Your task to perform on an android device: add a label to a message in the gmail app Image 0: 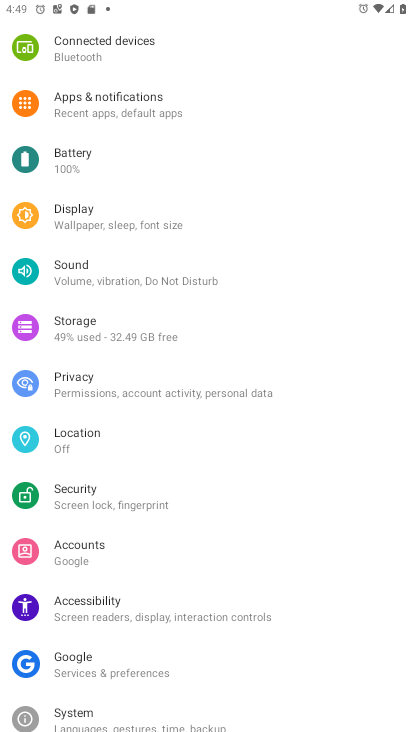
Step 0: drag from (262, 709) to (338, 326)
Your task to perform on an android device: add a label to a message in the gmail app Image 1: 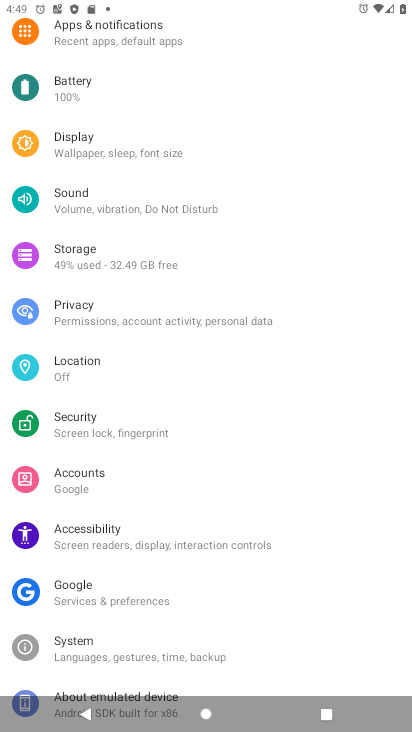
Step 1: press home button
Your task to perform on an android device: add a label to a message in the gmail app Image 2: 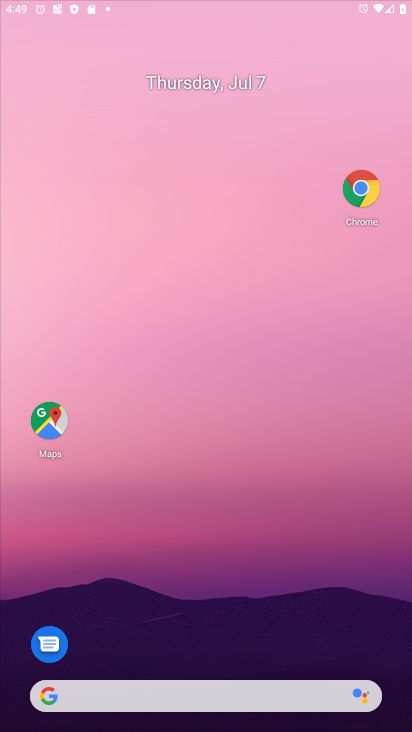
Step 2: drag from (314, 560) to (213, 4)
Your task to perform on an android device: add a label to a message in the gmail app Image 3: 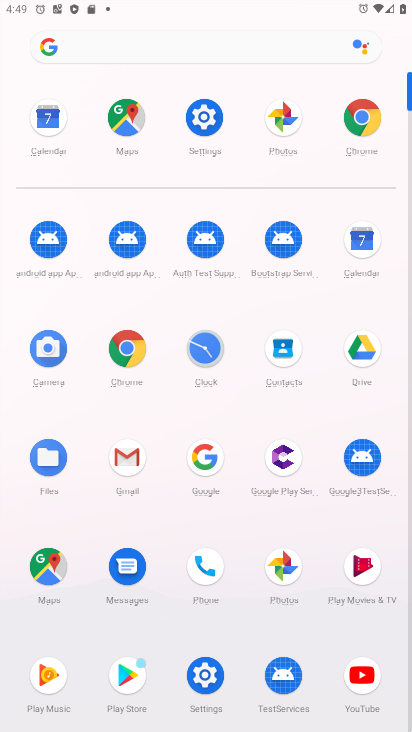
Step 3: click (118, 478)
Your task to perform on an android device: add a label to a message in the gmail app Image 4: 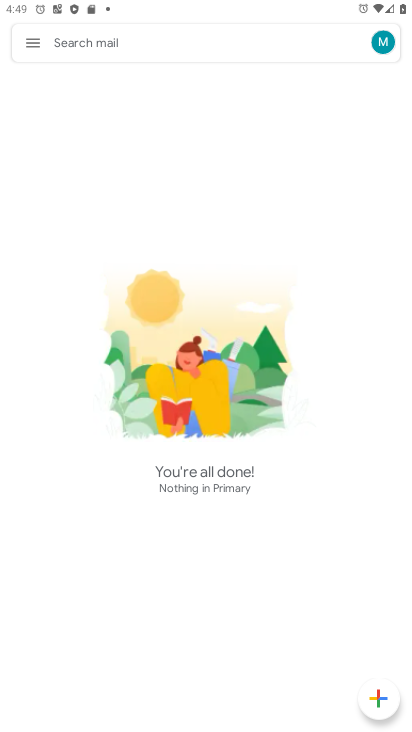
Step 4: task complete